Your task to perform on an android device: open a bookmark in the chrome app Image 0: 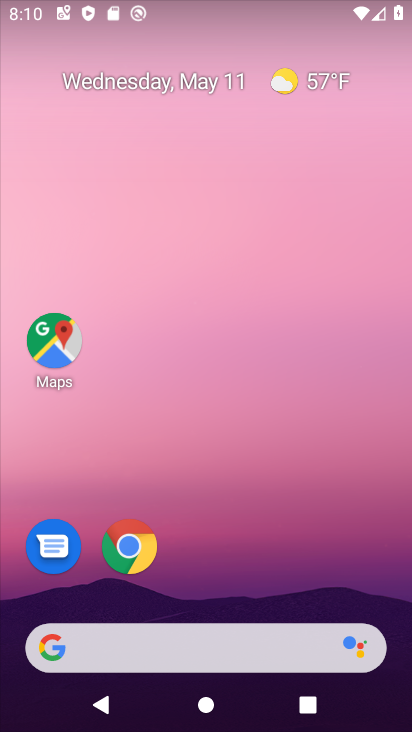
Step 0: click (120, 552)
Your task to perform on an android device: open a bookmark in the chrome app Image 1: 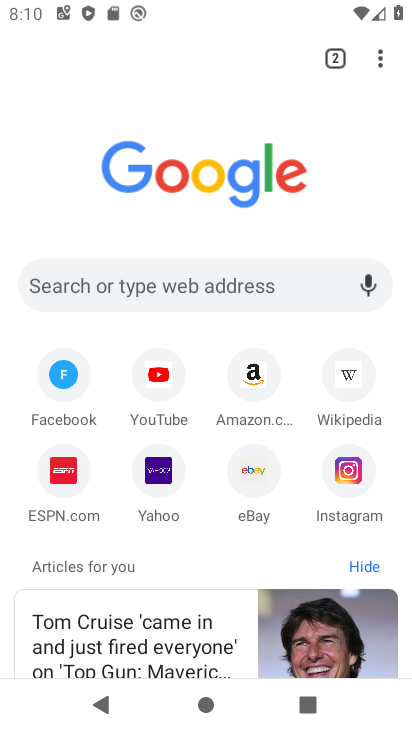
Step 1: drag from (369, 58) to (226, 225)
Your task to perform on an android device: open a bookmark in the chrome app Image 2: 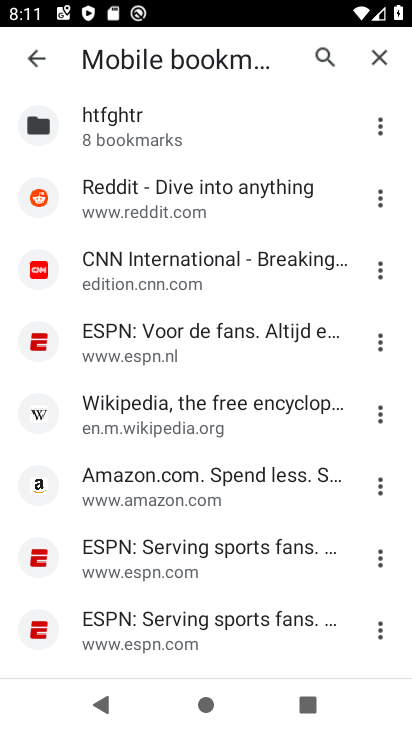
Step 2: click (116, 317)
Your task to perform on an android device: open a bookmark in the chrome app Image 3: 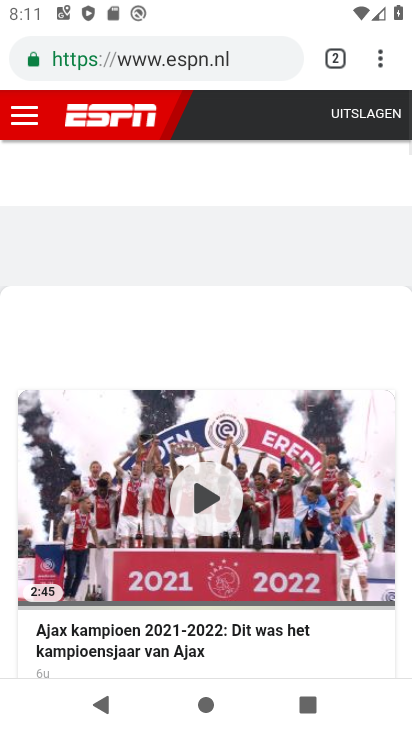
Step 3: task complete